Your task to perform on an android device: turn on notifications settings in the gmail app Image 0: 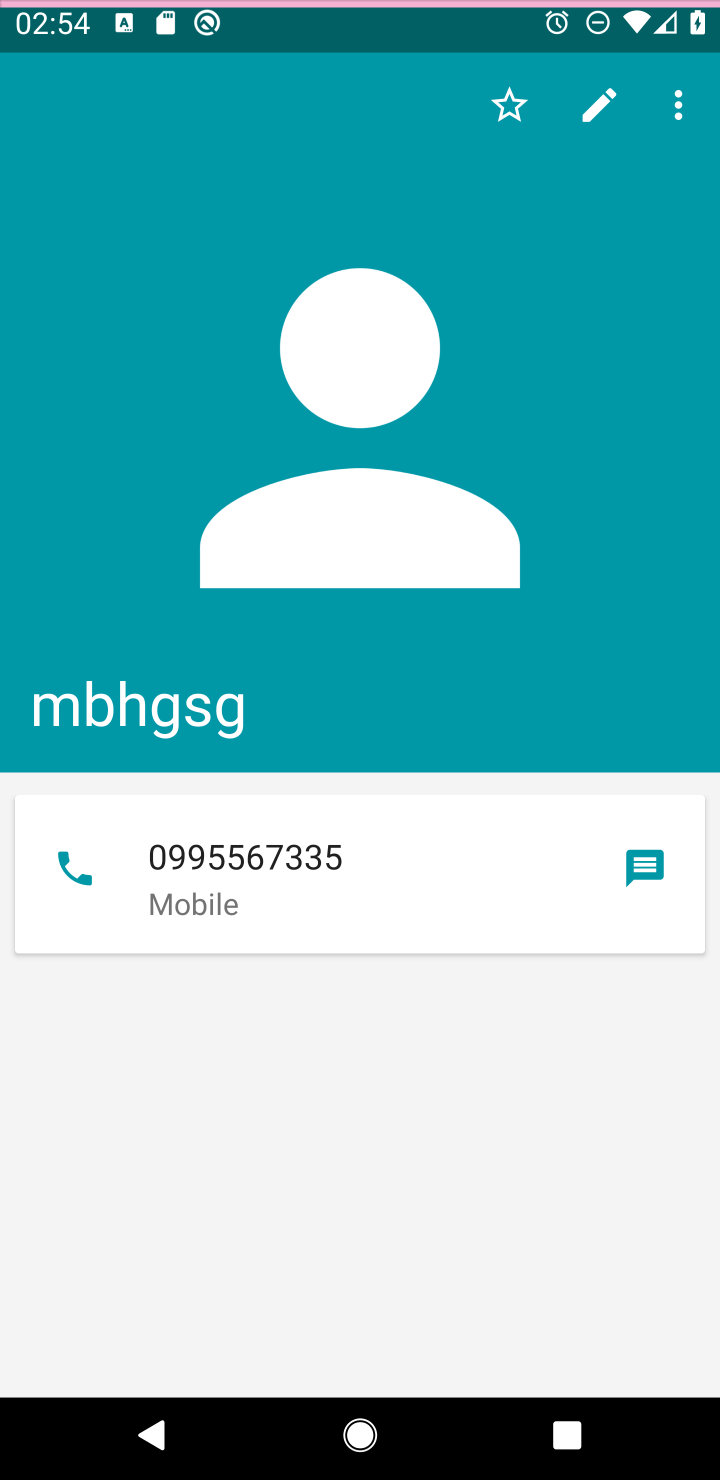
Step 0: press home button
Your task to perform on an android device: turn on notifications settings in the gmail app Image 1: 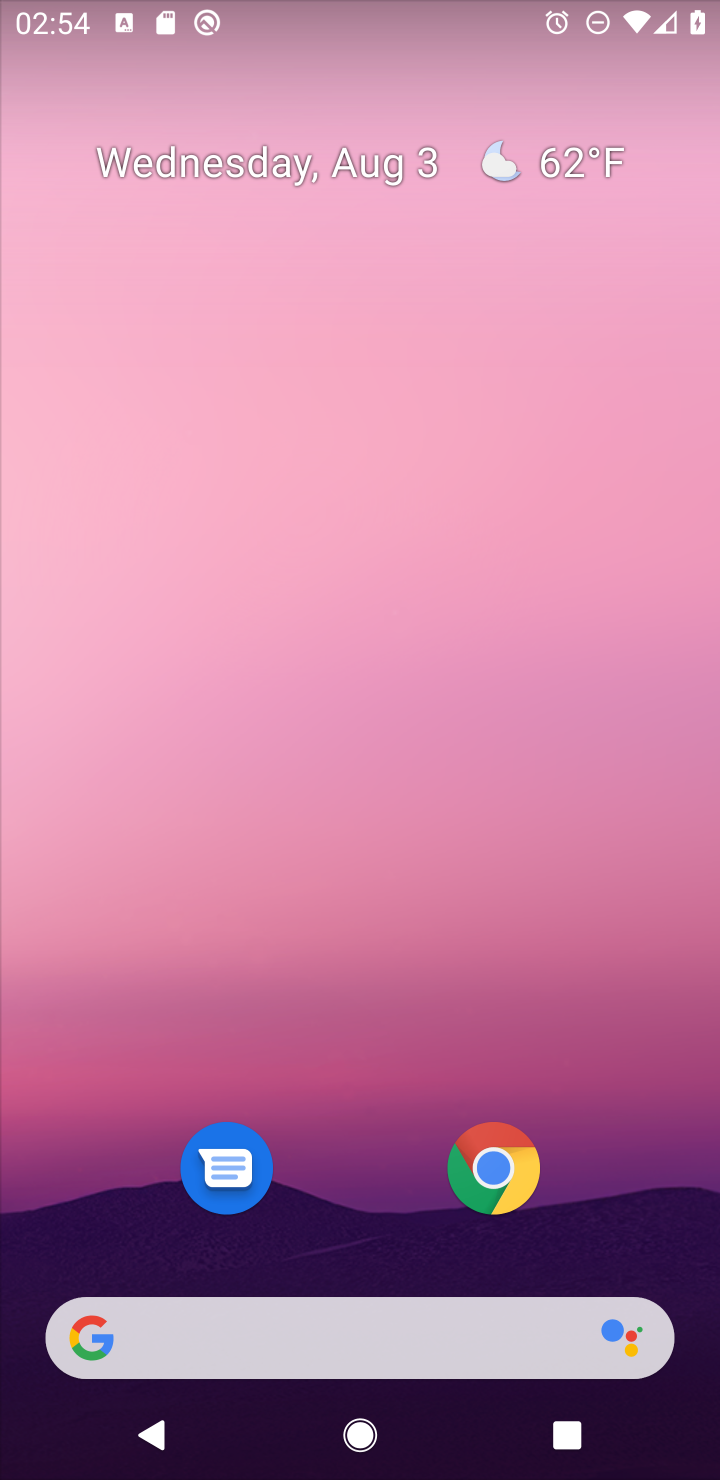
Step 1: drag from (669, 1193) to (598, 231)
Your task to perform on an android device: turn on notifications settings in the gmail app Image 2: 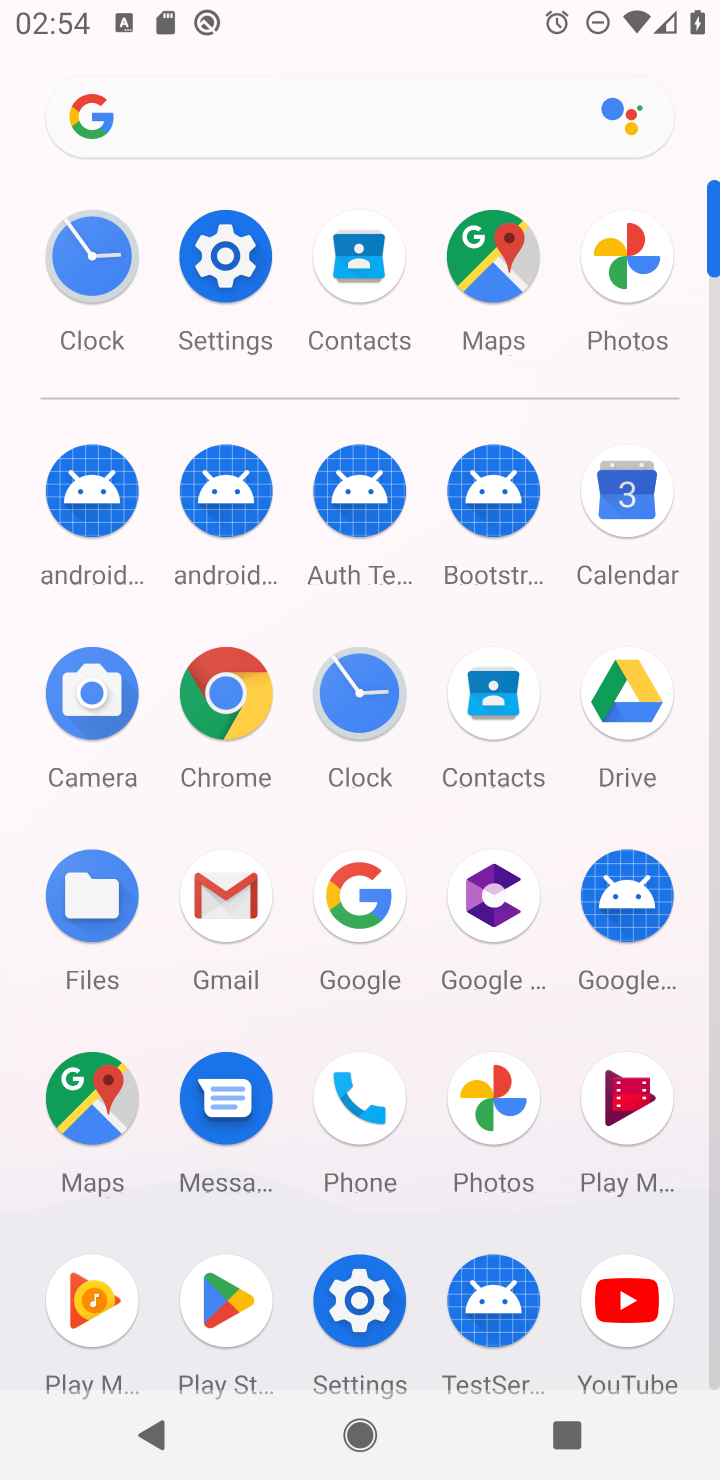
Step 2: click (224, 900)
Your task to perform on an android device: turn on notifications settings in the gmail app Image 3: 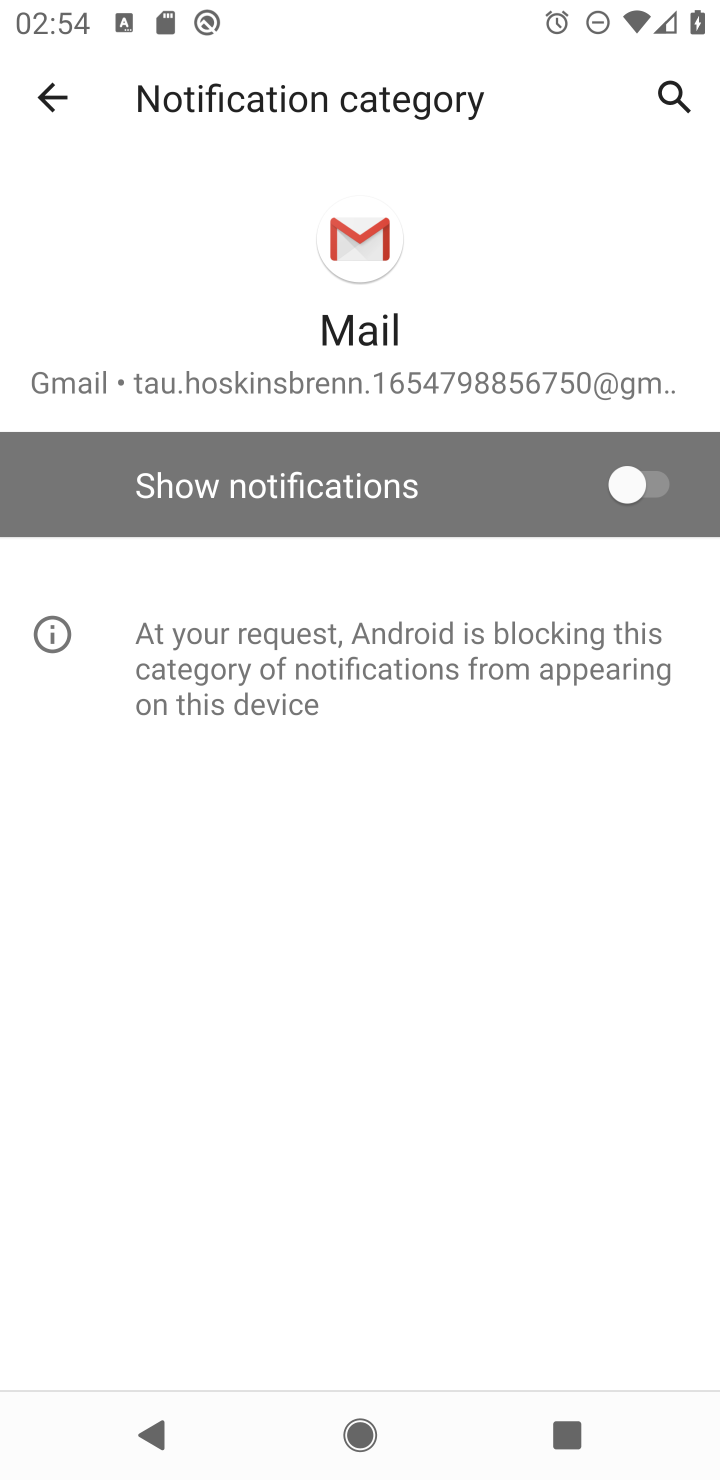
Step 3: press back button
Your task to perform on an android device: turn on notifications settings in the gmail app Image 4: 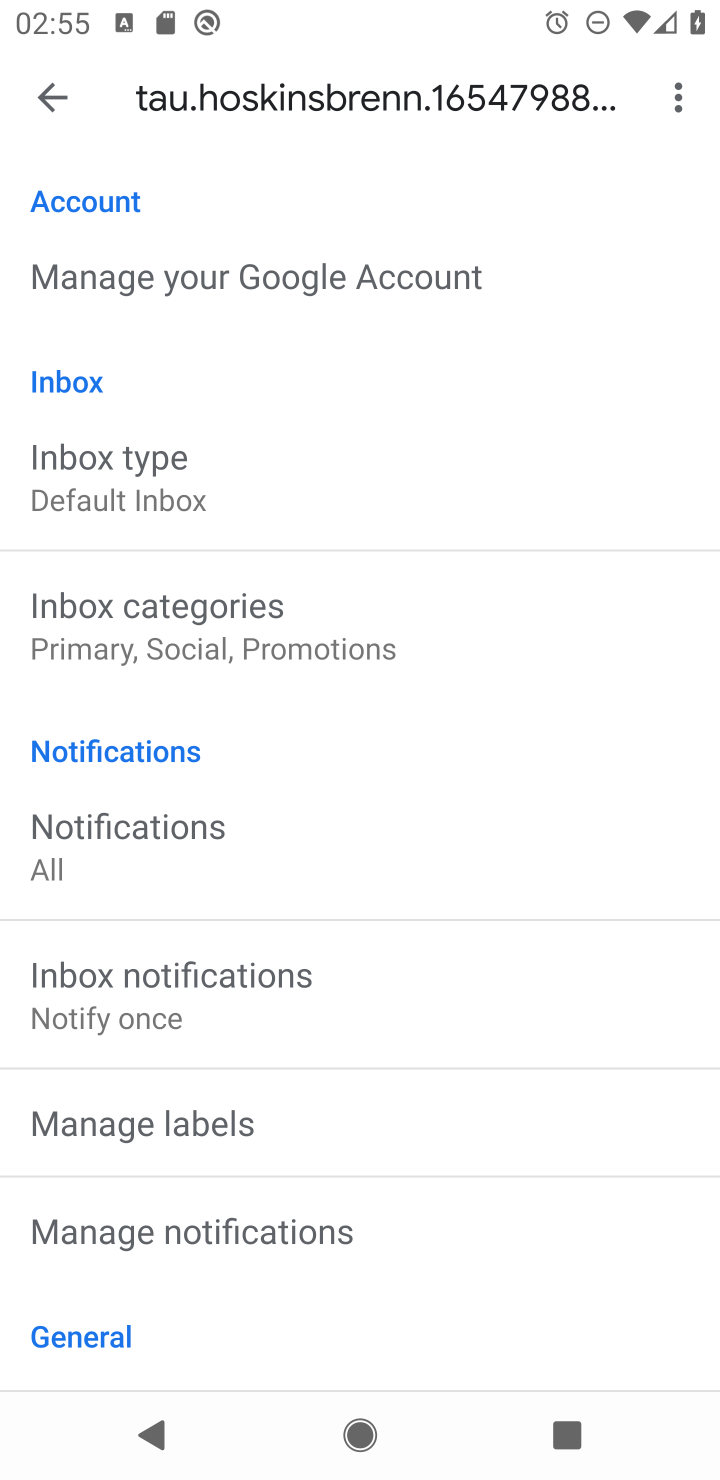
Step 4: click (190, 1243)
Your task to perform on an android device: turn on notifications settings in the gmail app Image 5: 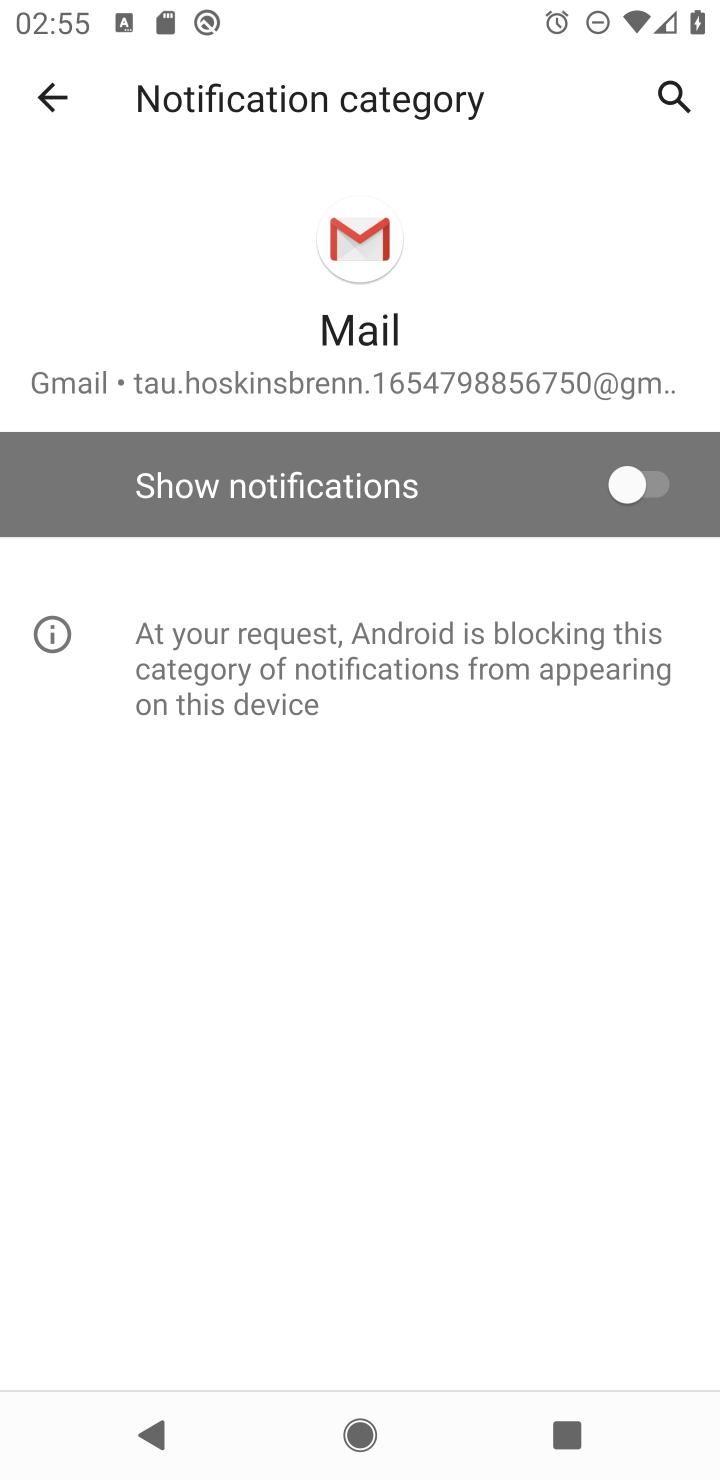
Step 5: click (653, 483)
Your task to perform on an android device: turn on notifications settings in the gmail app Image 6: 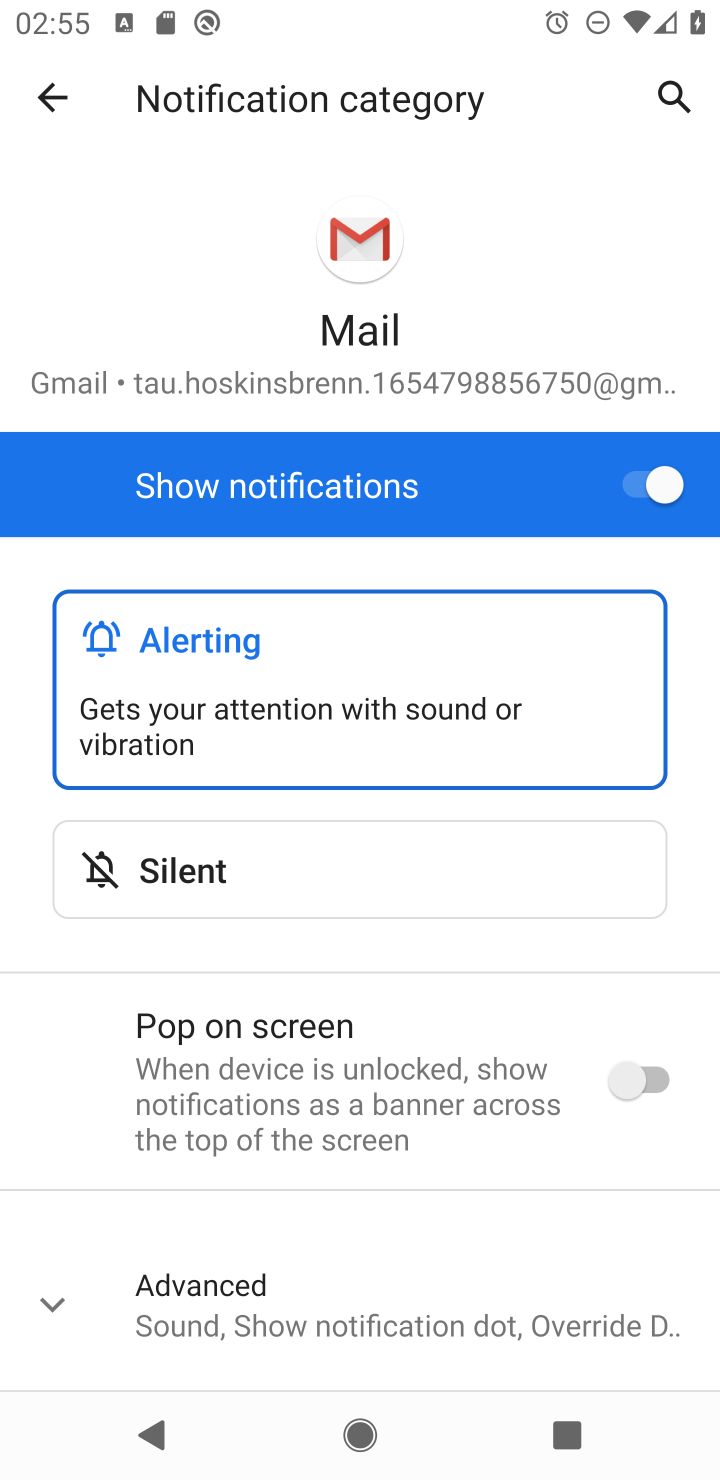
Step 6: task complete